Your task to perform on an android device: Do I have any events this weekend? Image 0: 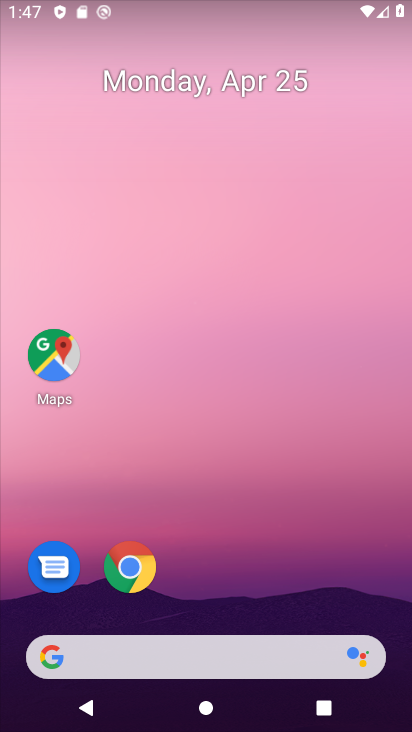
Step 0: drag from (271, 610) to (299, 90)
Your task to perform on an android device: Do I have any events this weekend? Image 1: 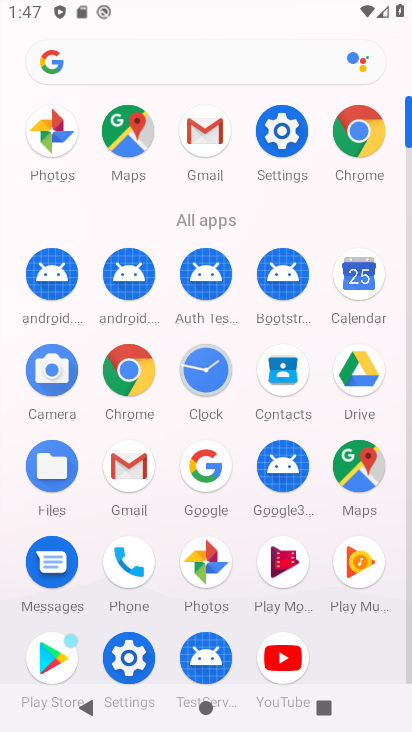
Step 1: click (347, 277)
Your task to perform on an android device: Do I have any events this weekend? Image 2: 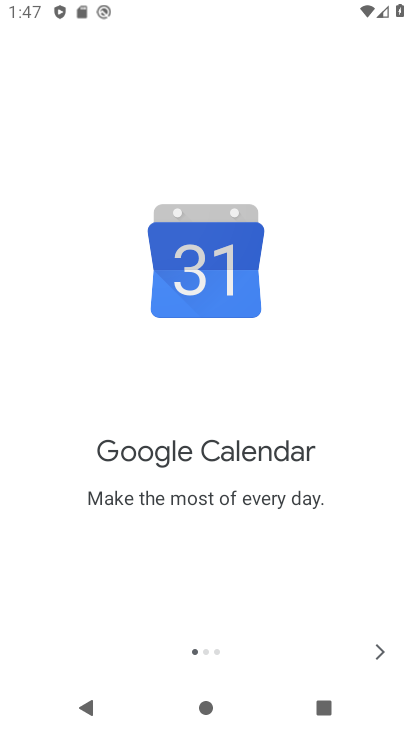
Step 2: click (379, 661)
Your task to perform on an android device: Do I have any events this weekend? Image 3: 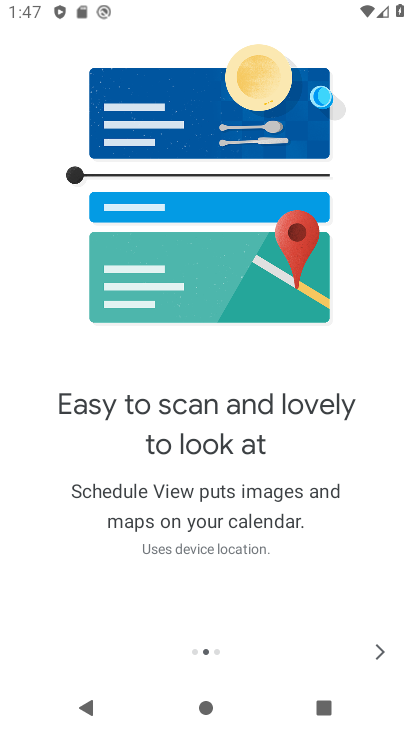
Step 3: click (379, 661)
Your task to perform on an android device: Do I have any events this weekend? Image 4: 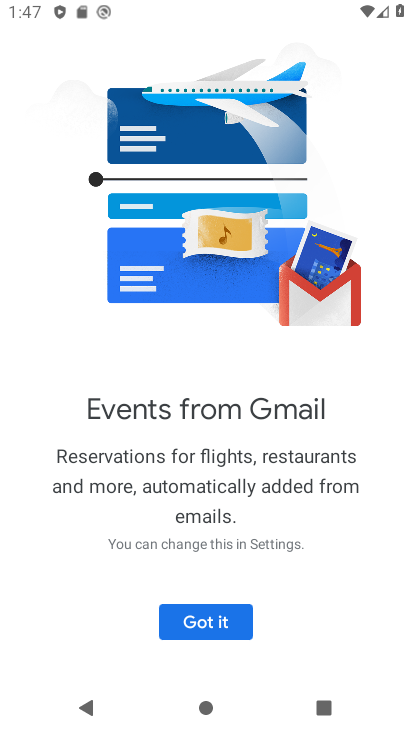
Step 4: click (219, 627)
Your task to perform on an android device: Do I have any events this weekend? Image 5: 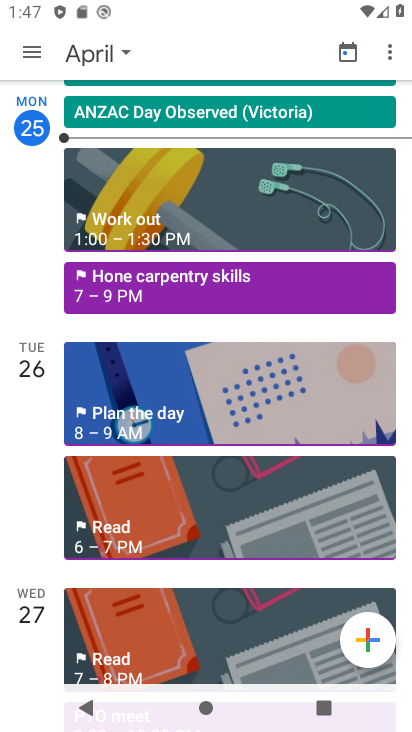
Step 5: click (27, 62)
Your task to perform on an android device: Do I have any events this weekend? Image 6: 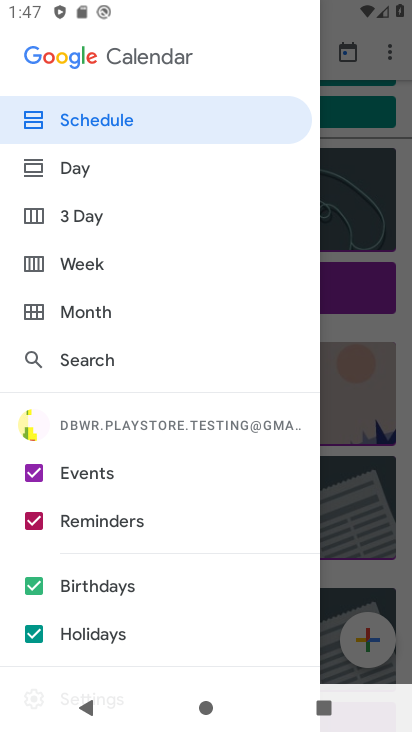
Step 6: click (112, 265)
Your task to perform on an android device: Do I have any events this weekend? Image 7: 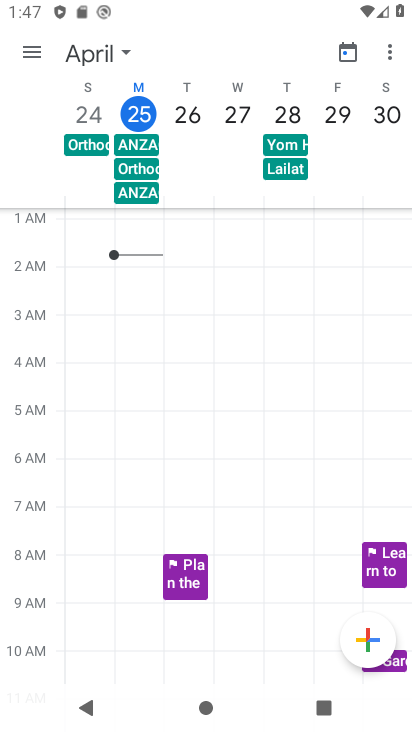
Step 7: click (298, 113)
Your task to perform on an android device: Do I have any events this weekend? Image 8: 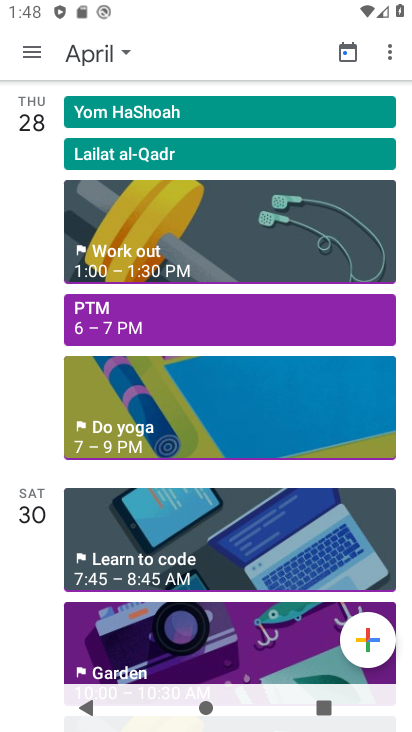
Step 8: task complete